Your task to perform on an android device: turn on translation in the chrome app Image 0: 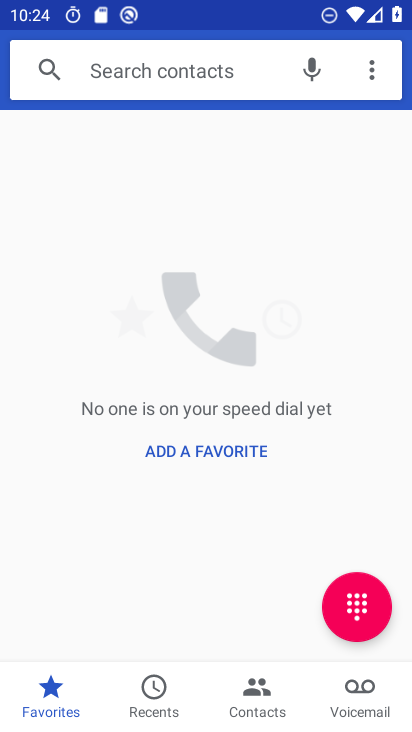
Step 0: press home button
Your task to perform on an android device: turn on translation in the chrome app Image 1: 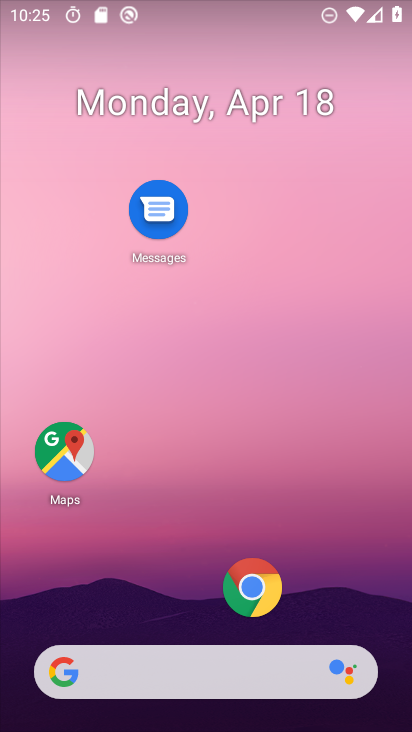
Step 1: click (272, 590)
Your task to perform on an android device: turn on translation in the chrome app Image 2: 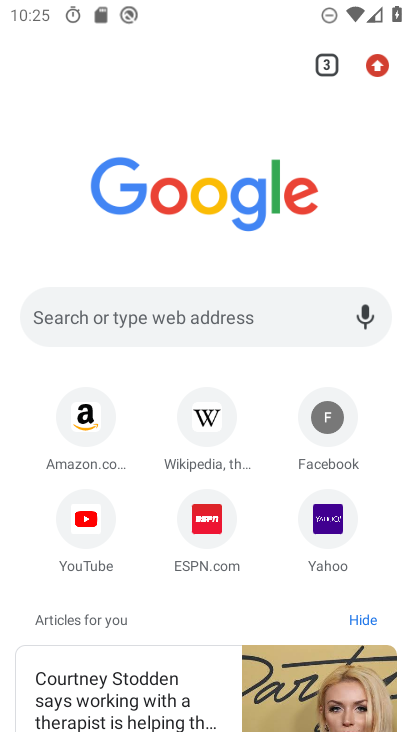
Step 2: click (376, 68)
Your task to perform on an android device: turn on translation in the chrome app Image 3: 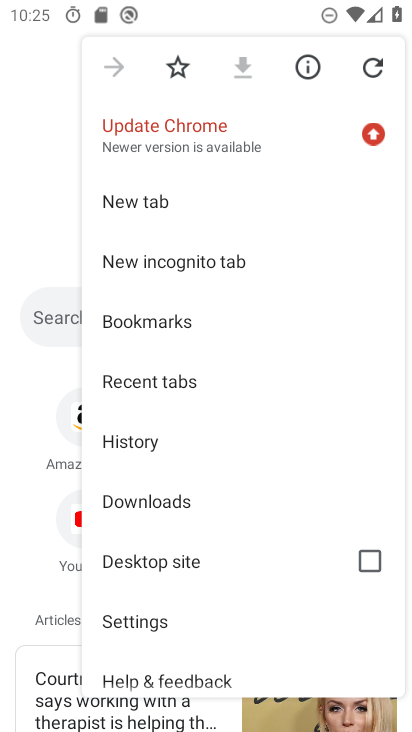
Step 3: click (137, 622)
Your task to perform on an android device: turn on translation in the chrome app Image 4: 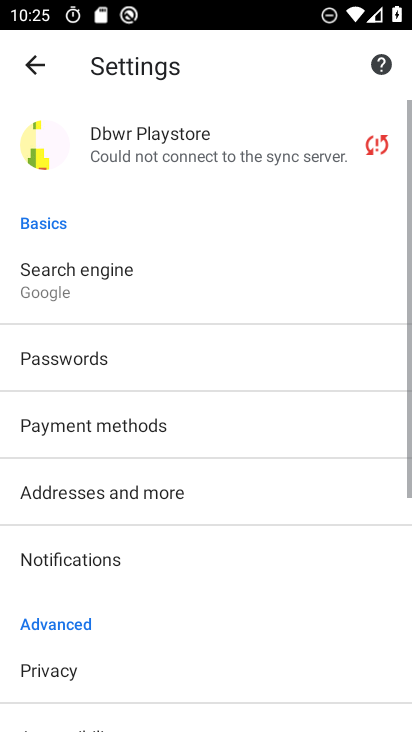
Step 4: drag from (124, 618) to (207, 161)
Your task to perform on an android device: turn on translation in the chrome app Image 5: 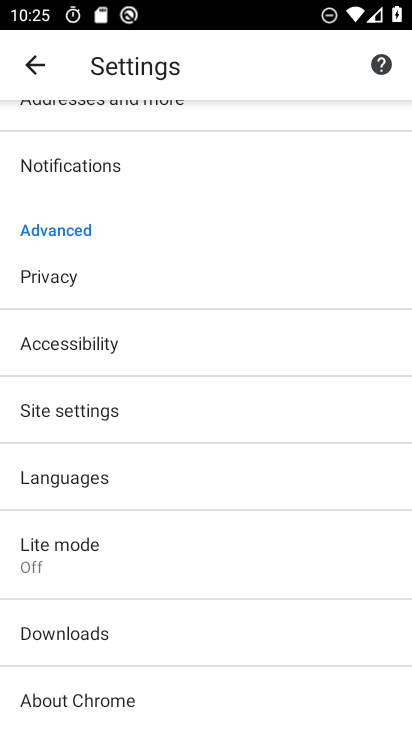
Step 5: click (75, 480)
Your task to perform on an android device: turn on translation in the chrome app Image 6: 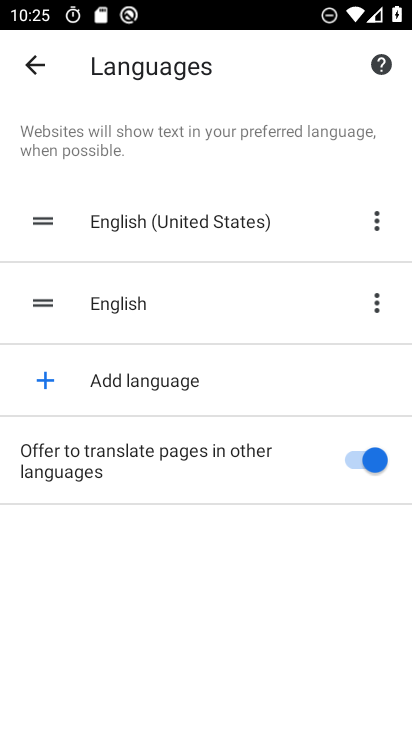
Step 6: task complete